Your task to perform on an android device: check the backup settings in the google photos Image 0: 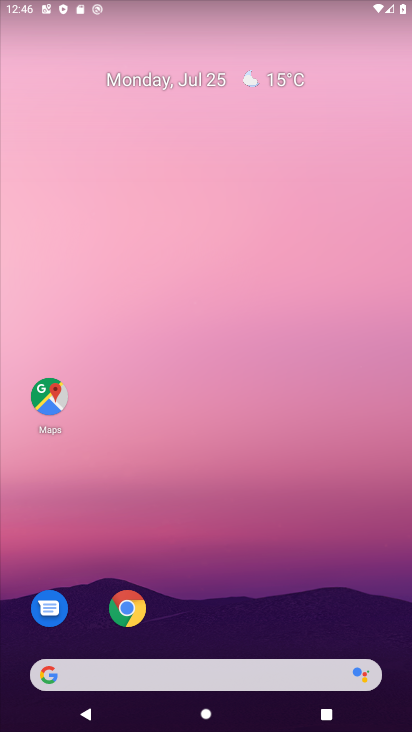
Step 0: drag from (244, 604) to (235, 98)
Your task to perform on an android device: check the backup settings in the google photos Image 1: 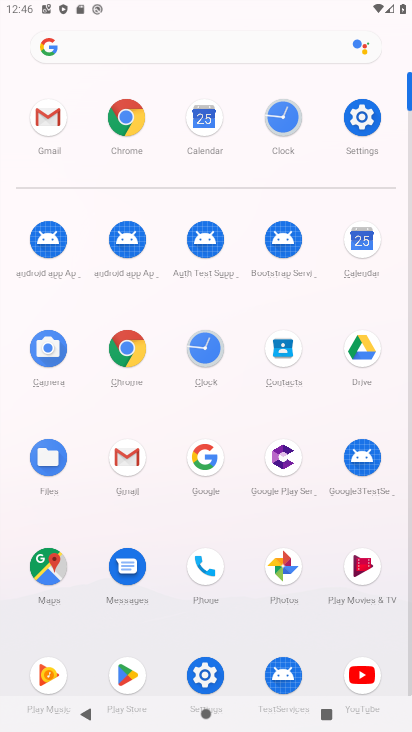
Step 1: click (285, 582)
Your task to perform on an android device: check the backup settings in the google photos Image 2: 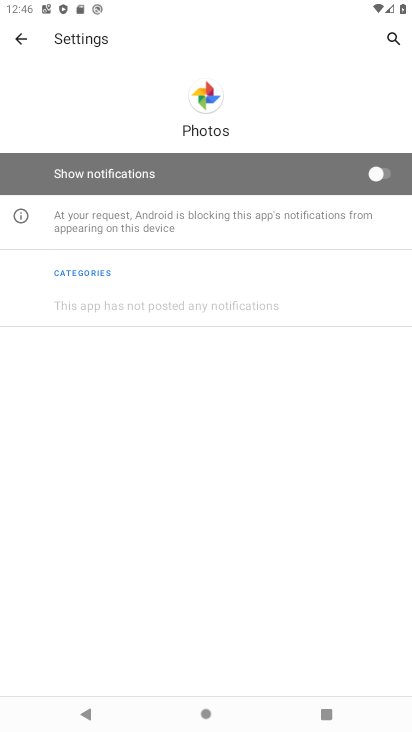
Step 2: press back button
Your task to perform on an android device: check the backup settings in the google photos Image 3: 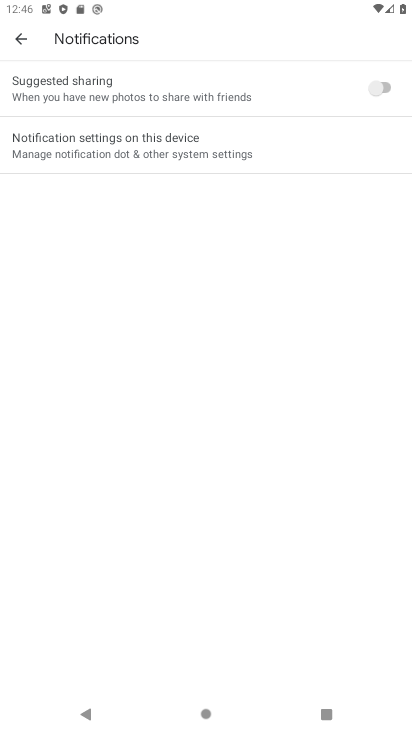
Step 3: press back button
Your task to perform on an android device: check the backup settings in the google photos Image 4: 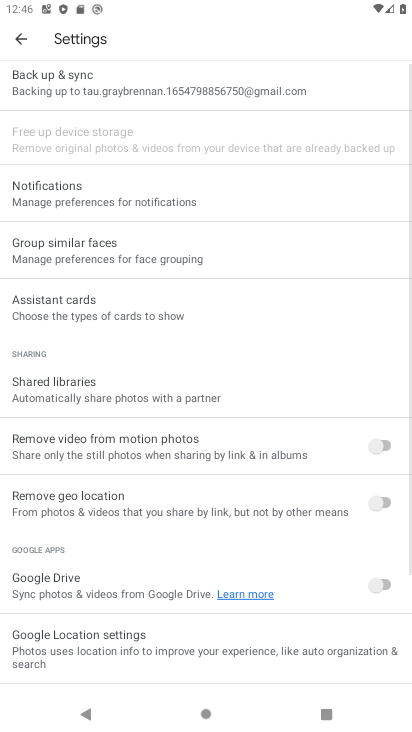
Step 4: click (179, 89)
Your task to perform on an android device: check the backup settings in the google photos Image 5: 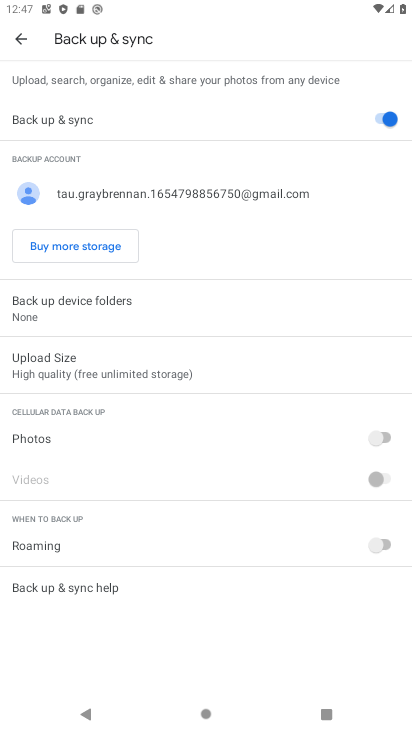
Step 5: task complete